Your task to perform on an android device: make emails show in primary in the gmail app Image 0: 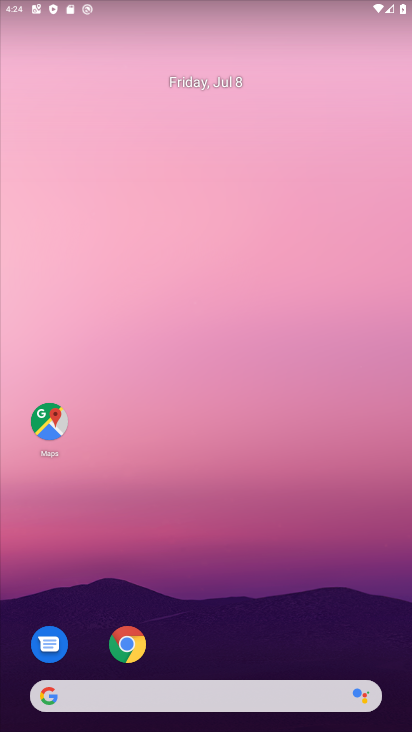
Step 0: press home button
Your task to perform on an android device: make emails show in primary in the gmail app Image 1: 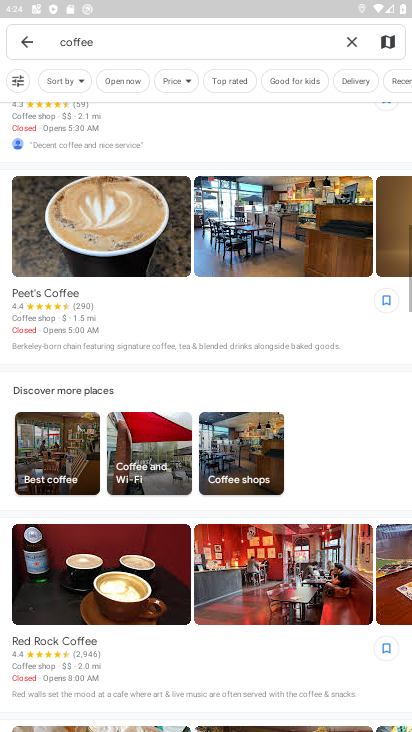
Step 1: drag from (248, 252) to (250, 31)
Your task to perform on an android device: make emails show in primary in the gmail app Image 2: 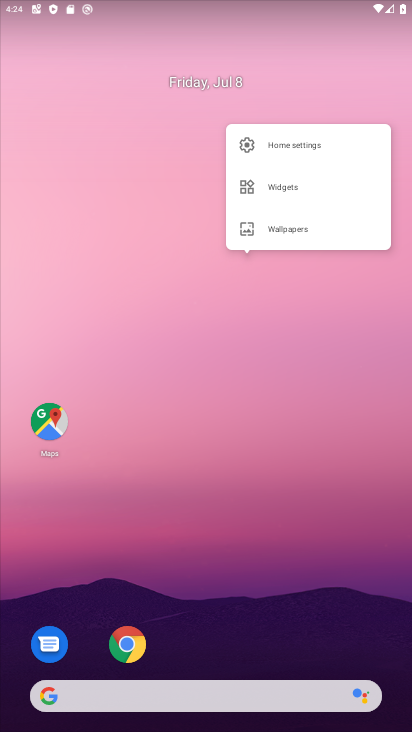
Step 2: click (205, 482)
Your task to perform on an android device: make emails show in primary in the gmail app Image 3: 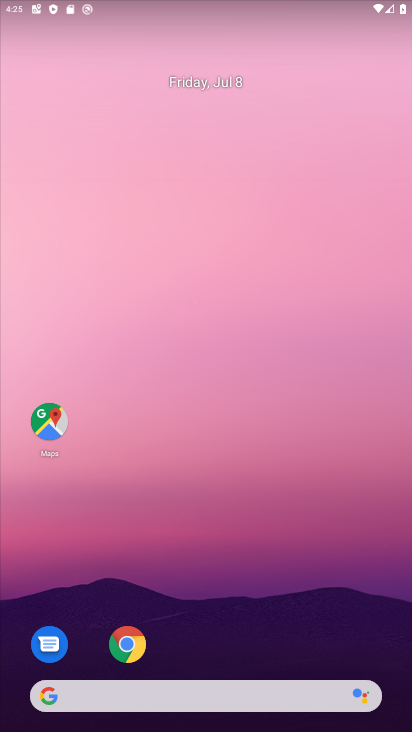
Step 3: drag from (223, 653) to (272, 7)
Your task to perform on an android device: make emails show in primary in the gmail app Image 4: 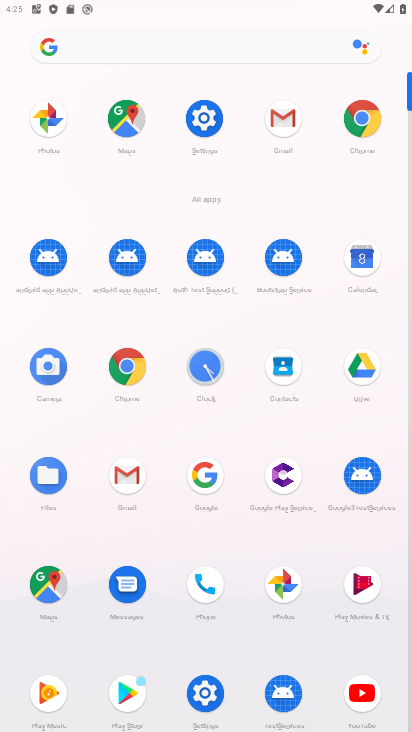
Step 4: click (277, 108)
Your task to perform on an android device: make emails show in primary in the gmail app Image 5: 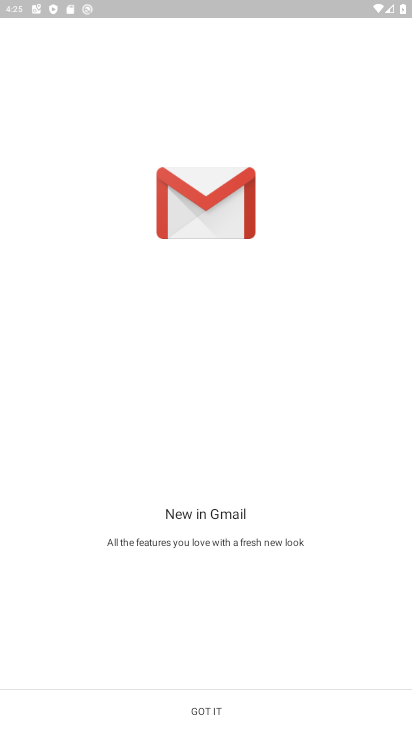
Step 5: click (208, 707)
Your task to perform on an android device: make emails show in primary in the gmail app Image 6: 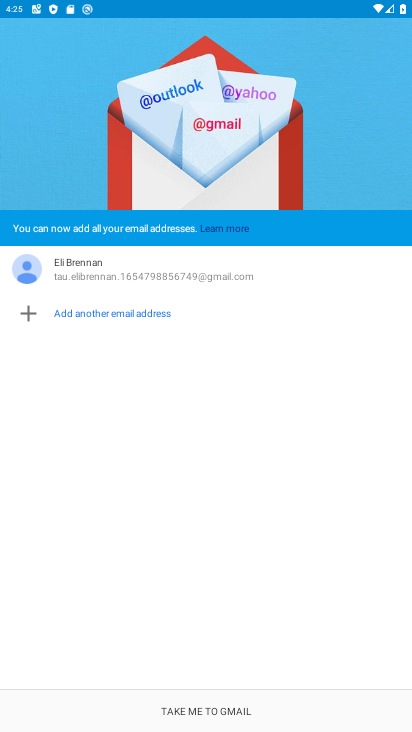
Step 6: click (198, 714)
Your task to perform on an android device: make emails show in primary in the gmail app Image 7: 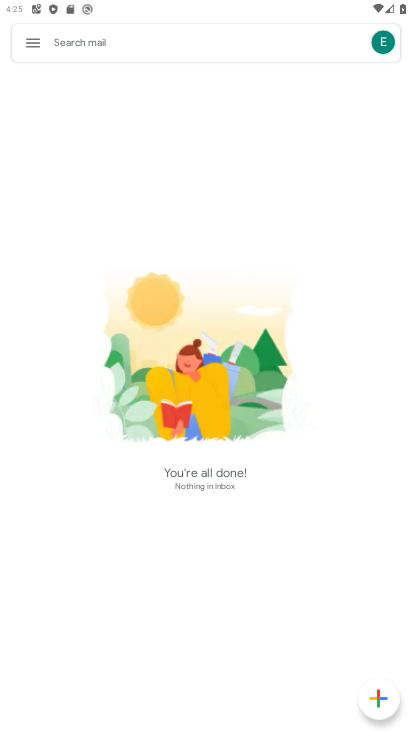
Step 7: click (32, 38)
Your task to perform on an android device: make emails show in primary in the gmail app Image 8: 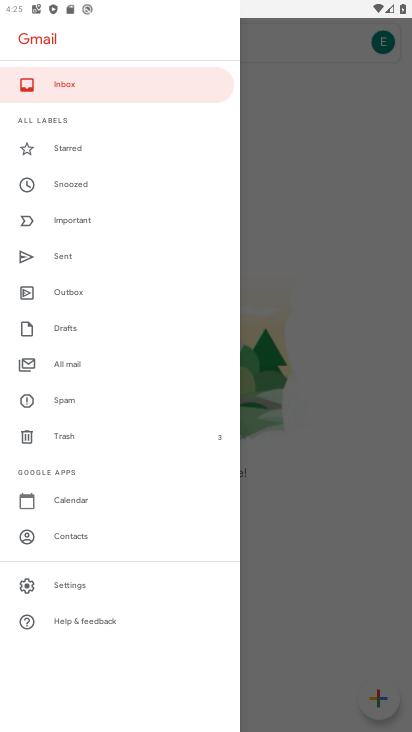
Step 8: click (43, 576)
Your task to perform on an android device: make emails show in primary in the gmail app Image 9: 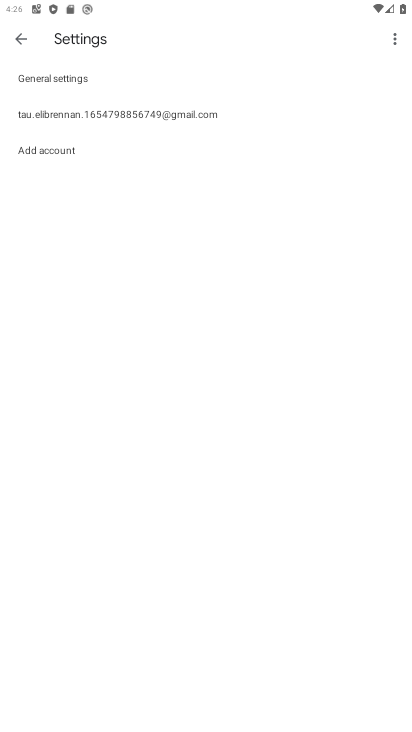
Step 9: click (218, 107)
Your task to perform on an android device: make emails show in primary in the gmail app Image 10: 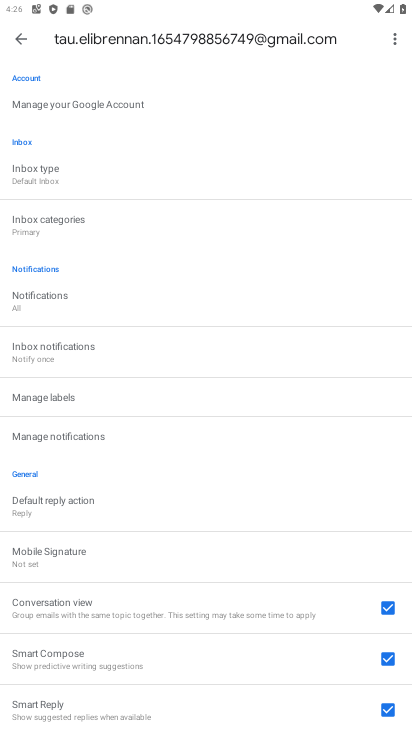
Step 10: click (75, 171)
Your task to perform on an android device: make emails show in primary in the gmail app Image 11: 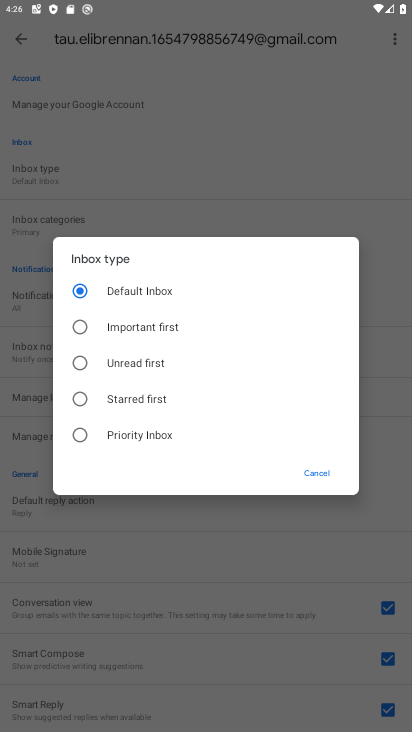
Step 11: click (94, 289)
Your task to perform on an android device: make emails show in primary in the gmail app Image 12: 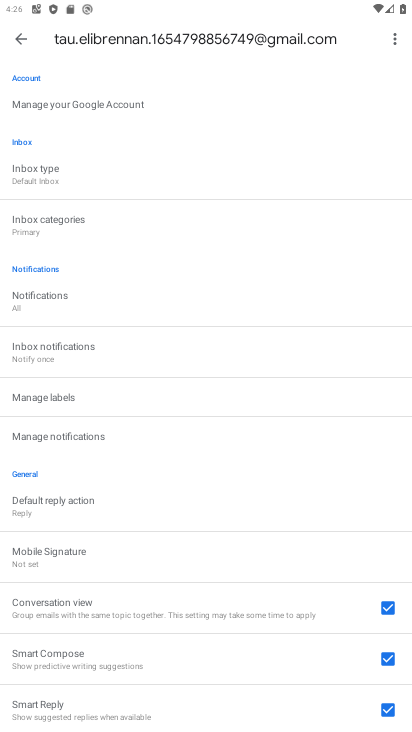
Step 12: click (83, 172)
Your task to perform on an android device: make emails show in primary in the gmail app Image 13: 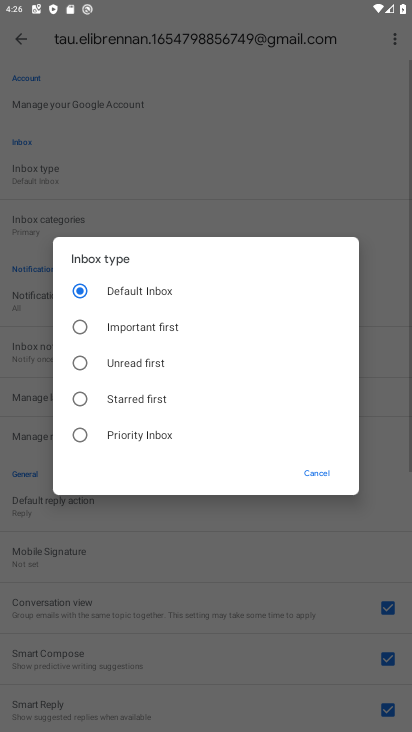
Step 13: click (146, 286)
Your task to perform on an android device: make emails show in primary in the gmail app Image 14: 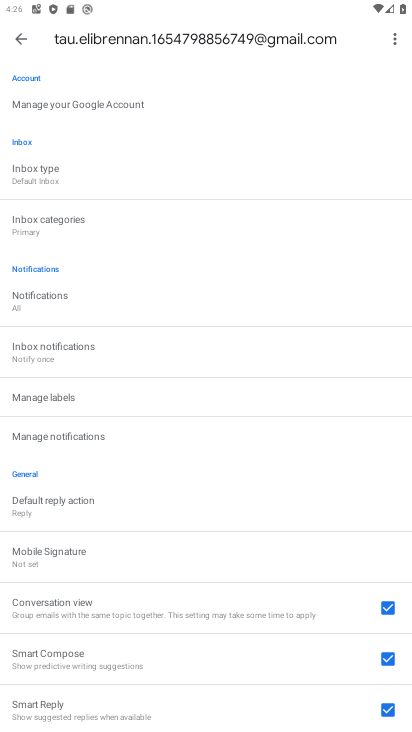
Step 14: task complete